Your task to perform on an android device: uninstall "Facebook" Image 0: 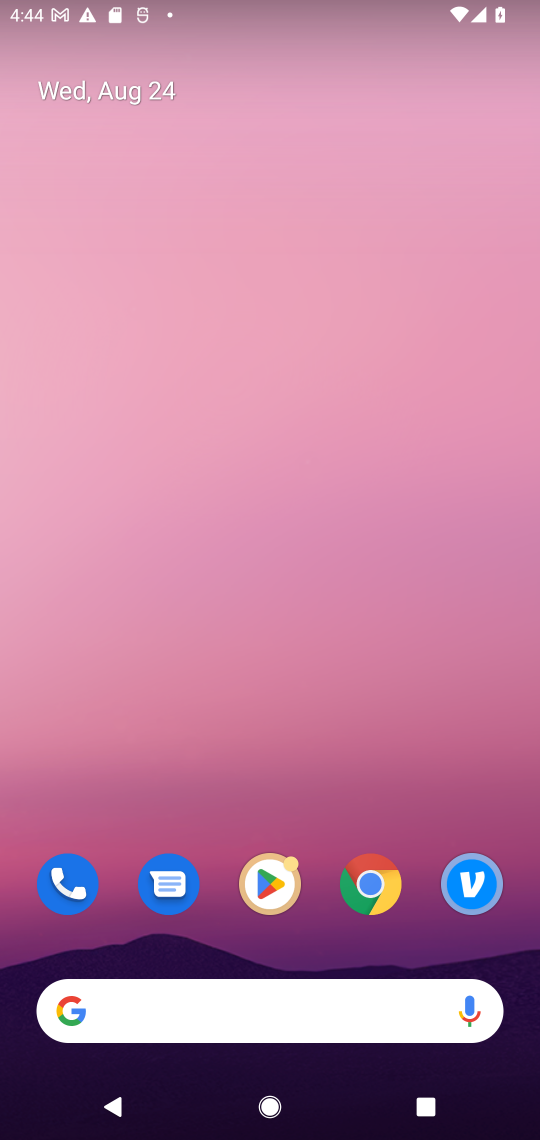
Step 0: click (276, 903)
Your task to perform on an android device: uninstall "Facebook" Image 1: 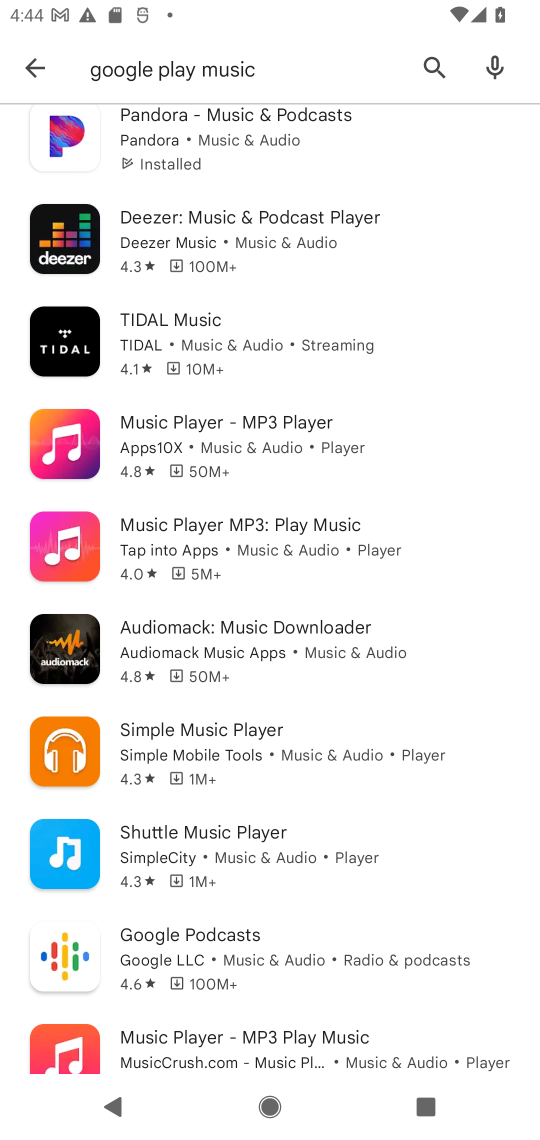
Step 1: click (29, 61)
Your task to perform on an android device: uninstall "Facebook" Image 2: 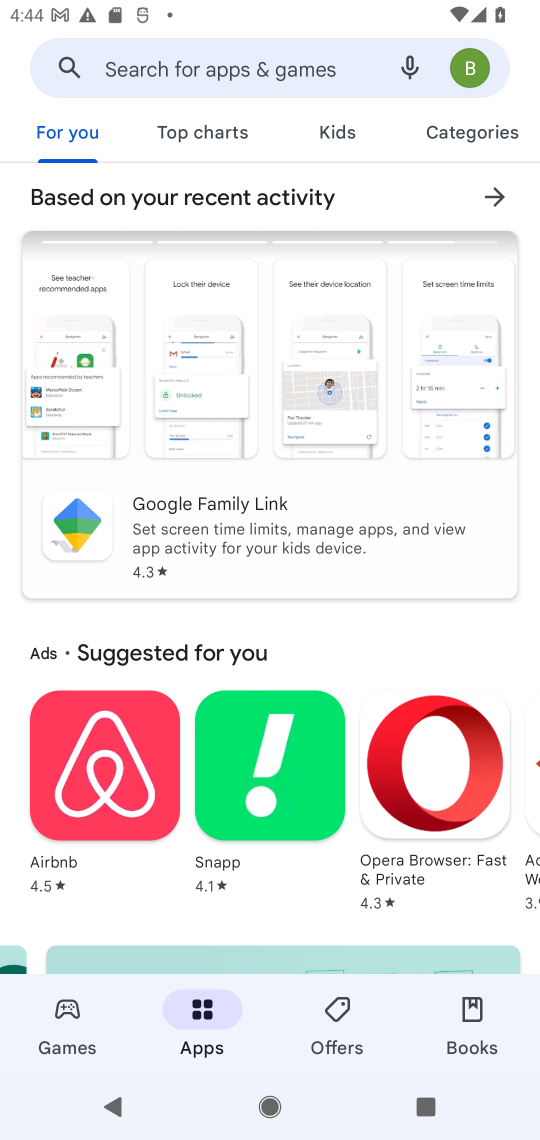
Step 2: click (237, 57)
Your task to perform on an android device: uninstall "Facebook" Image 3: 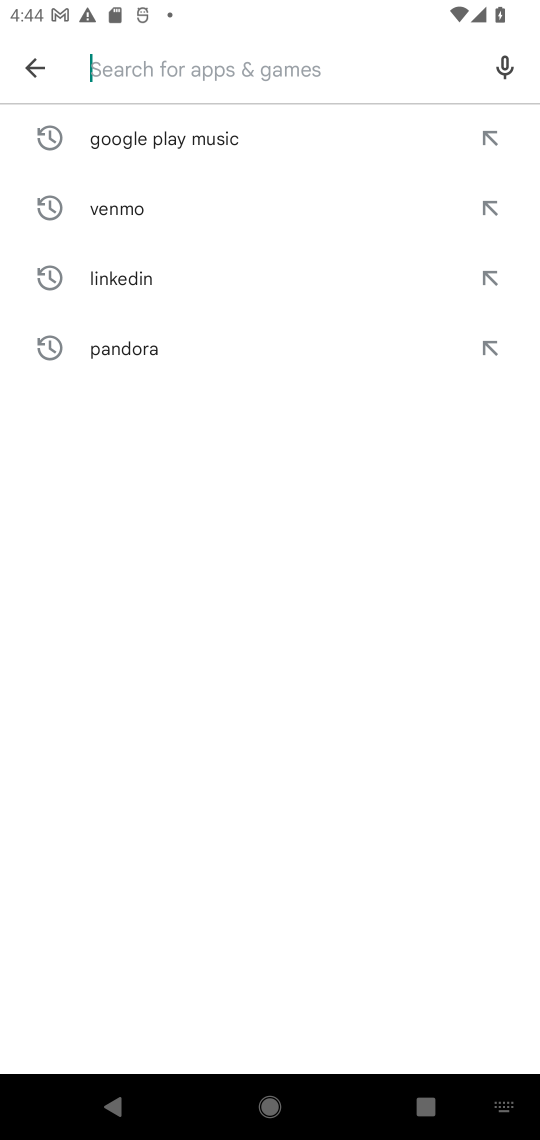
Step 3: type "Facebook"
Your task to perform on an android device: uninstall "Facebook" Image 4: 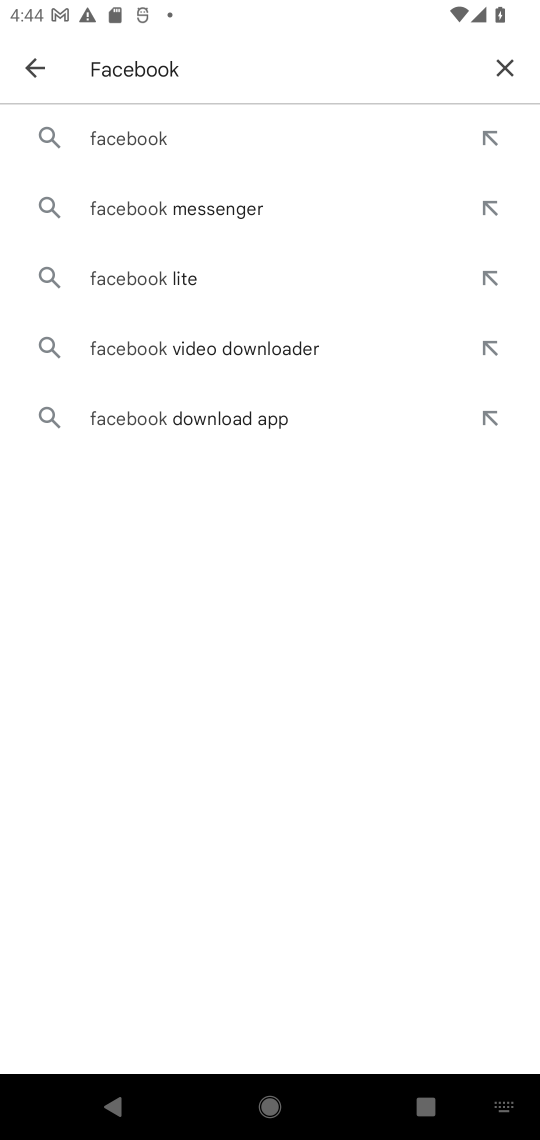
Step 4: click (137, 150)
Your task to perform on an android device: uninstall "Facebook" Image 5: 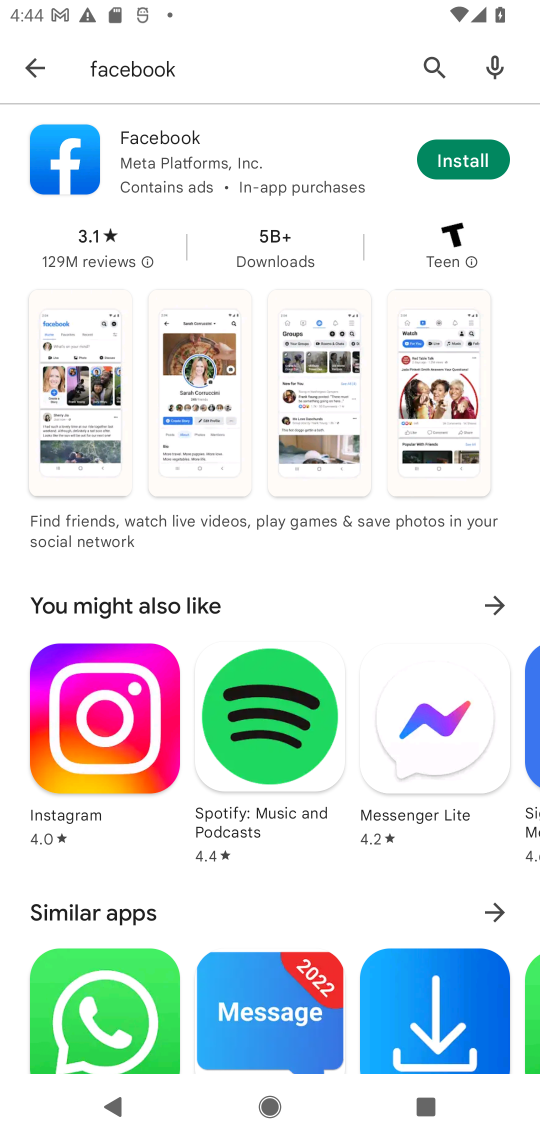
Step 5: task complete